Your task to perform on an android device: turn on the 24-hour format for clock Image 0: 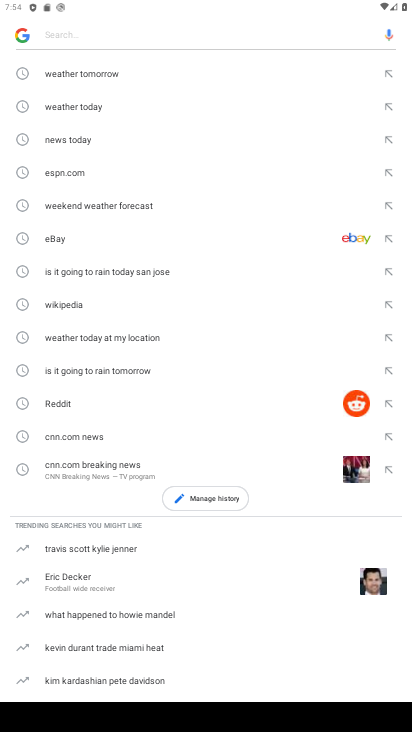
Step 0: press home button
Your task to perform on an android device: turn on the 24-hour format for clock Image 1: 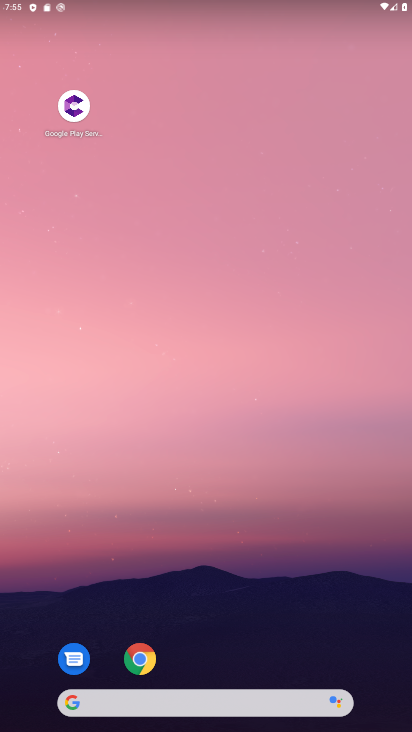
Step 1: drag from (363, 646) to (359, 101)
Your task to perform on an android device: turn on the 24-hour format for clock Image 2: 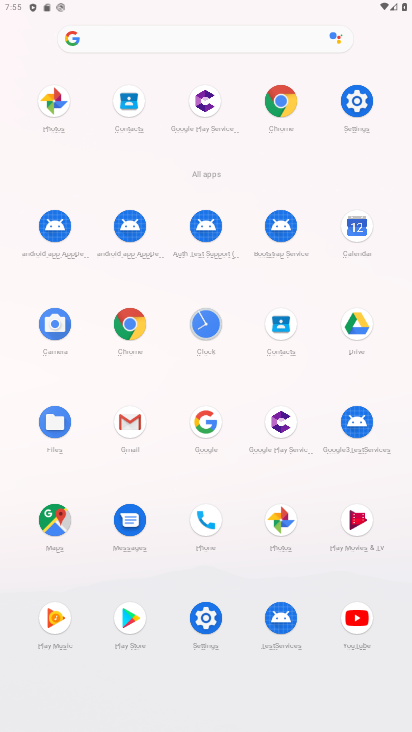
Step 2: click (360, 109)
Your task to perform on an android device: turn on the 24-hour format for clock Image 3: 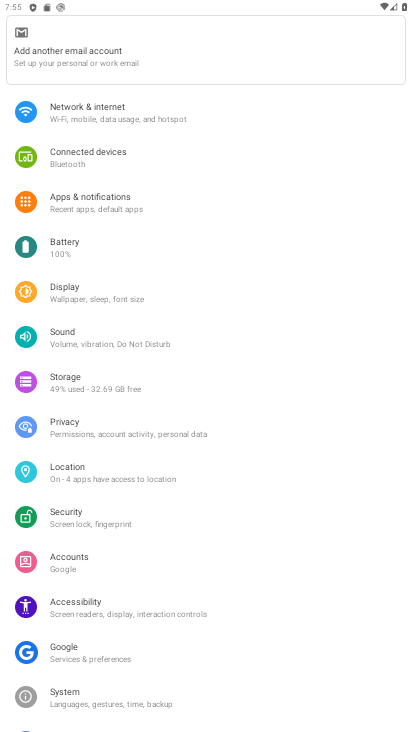
Step 3: drag from (355, 440) to (355, 310)
Your task to perform on an android device: turn on the 24-hour format for clock Image 4: 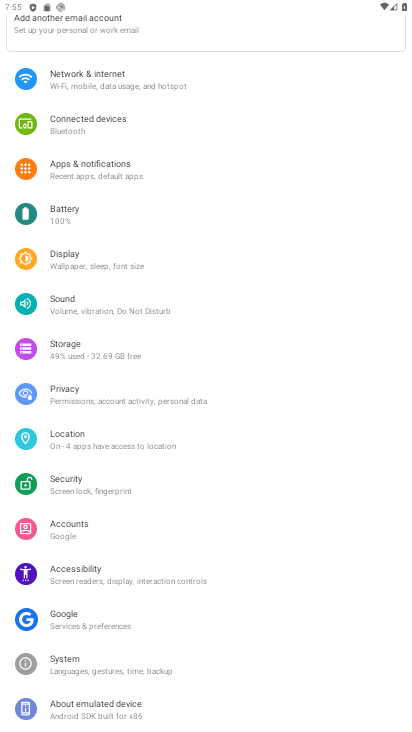
Step 4: drag from (347, 440) to (340, 274)
Your task to perform on an android device: turn on the 24-hour format for clock Image 5: 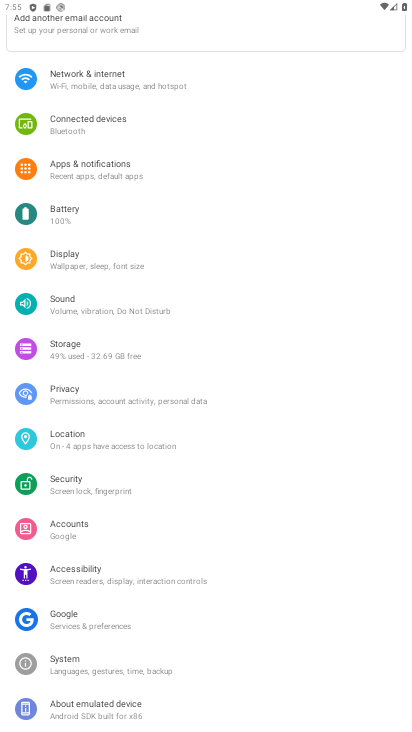
Step 5: drag from (327, 200) to (322, 334)
Your task to perform on an android device: turn on the 24-hour format for clock Image 6: 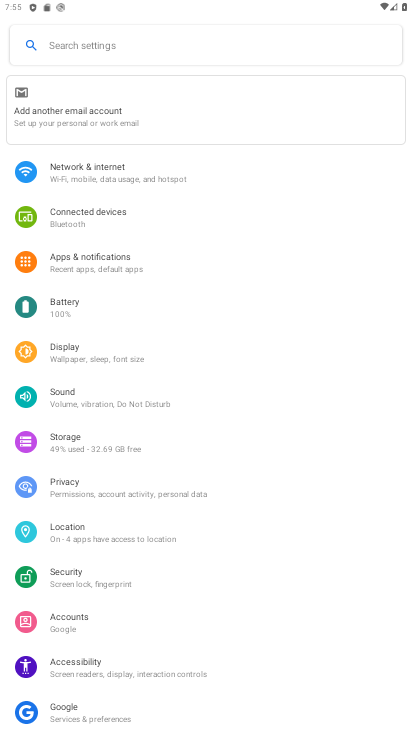
Step 6: press back button
Your task to perform on an android device: turn on the 24-hour format for clock Image 7: 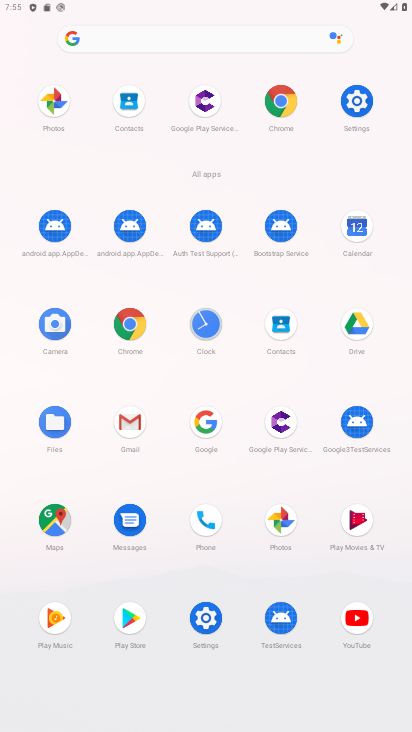
Step 7: click (209, 336)
Your task to perform on an android device: turn on the 24-hour format for clock Image 8: 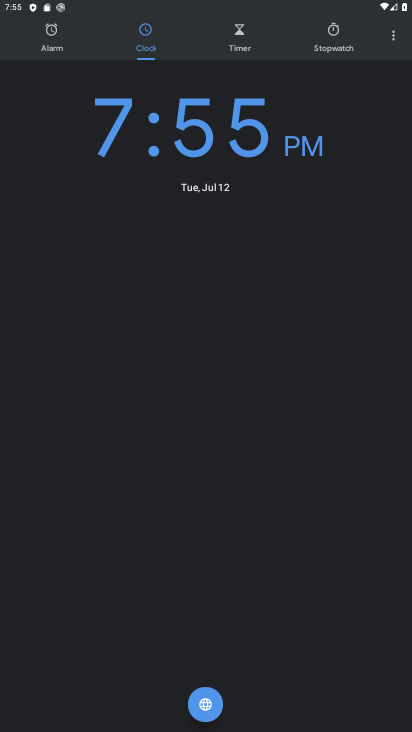
Step 8: click (394, 37)
Your task to perform on an android device: turn on the 24-hour format for clock Image 9: 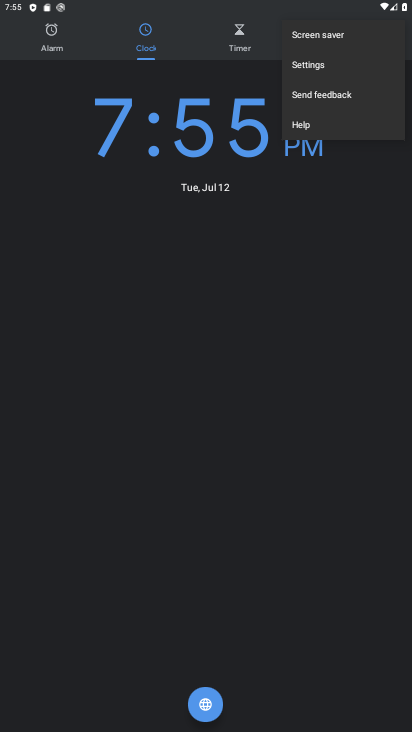
Step 9: click (326, 67)
Your task to perform on an android device: turn on the 24-hour format for clock Image 10: 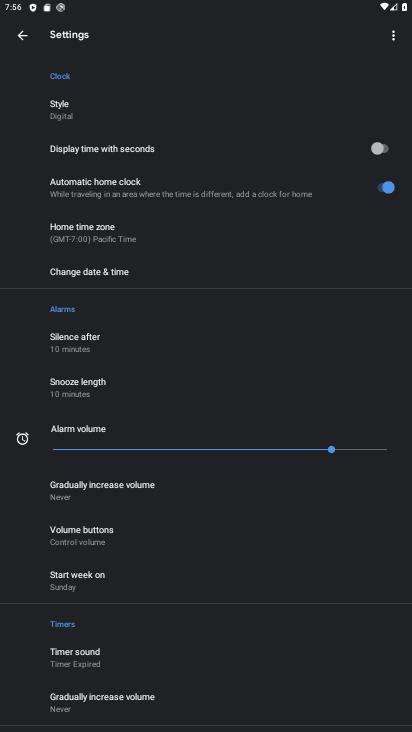
Step 10: drag from (357, 567) to (352, 419)
Your task to perform on an android device: turn on the 24-hour format for clock Image 11: 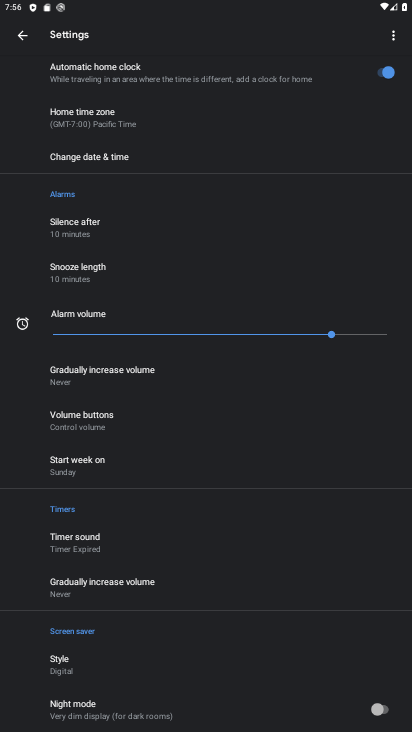
Step 11: drag from (343, 249) to (345, 348)
Your task to perform on an android device: turn on the 24-hour format for clock Image 12: 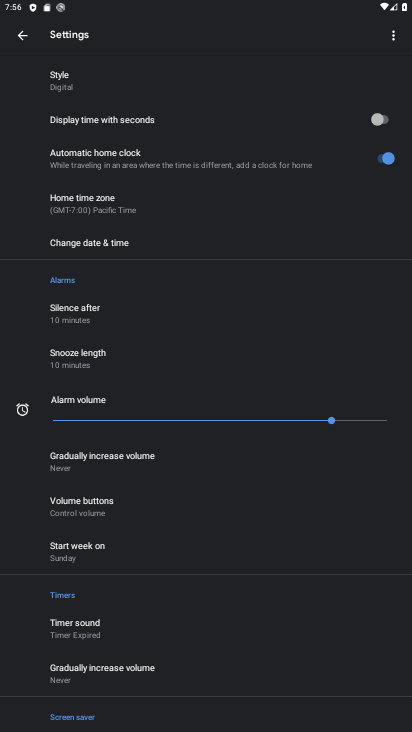
Step 12: drag from (328, 217) to (315, 390)
Your task to perform on an android device: turn on the 24-hour format for clock Image 13: 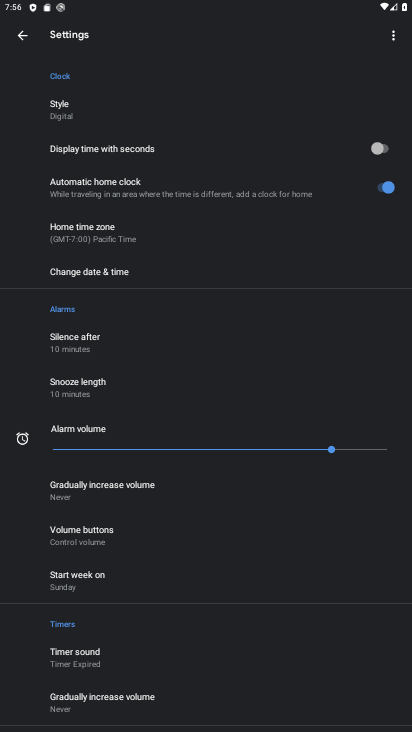
Step 13: click (146, 274)
Your task to perform on an android device: turn on the 24-hour format for clock Image 14: 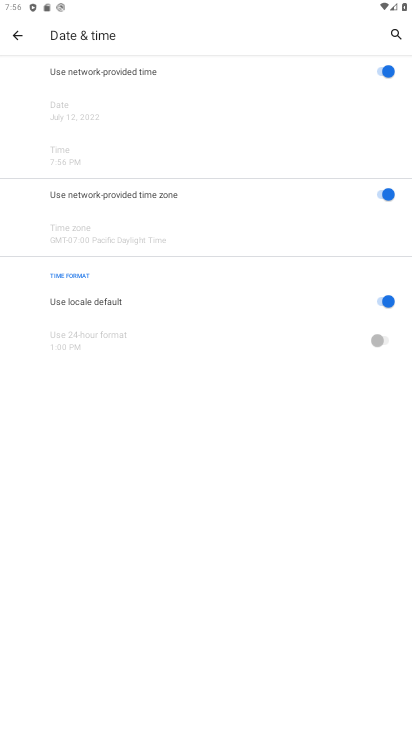
Step 14: click (390, 298)
Your task to perform on an android device: turn on the 24-hour format for clock Image 15: 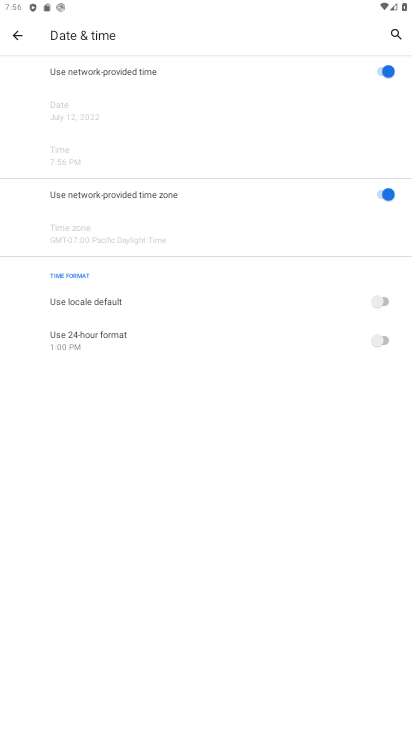
Step 15: click (376, 335)
Your task to perform on an android device: turn on the 24-hour format for clock Image 16: 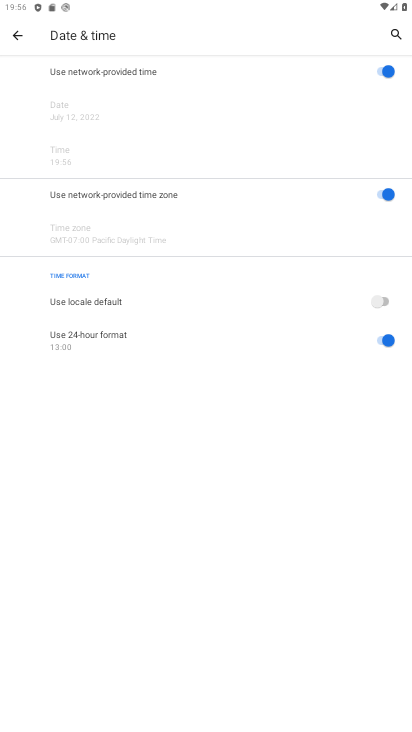
Step 16: task complete